Your task to perform on an android device: open wifi settings Image 0: 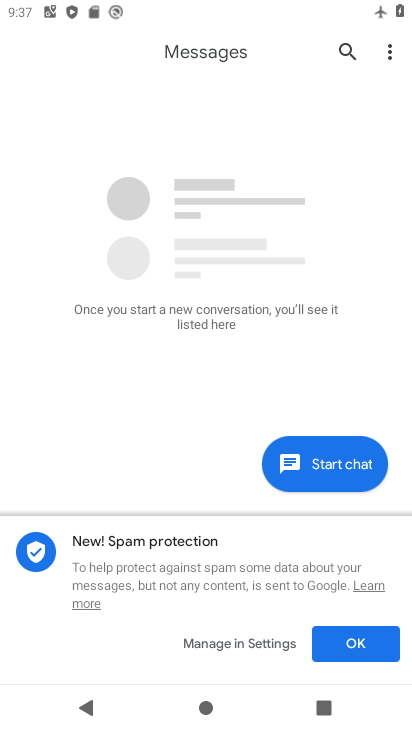
Step 0: press home button
Your task to perform on an android device: open wifi settings Image 1: 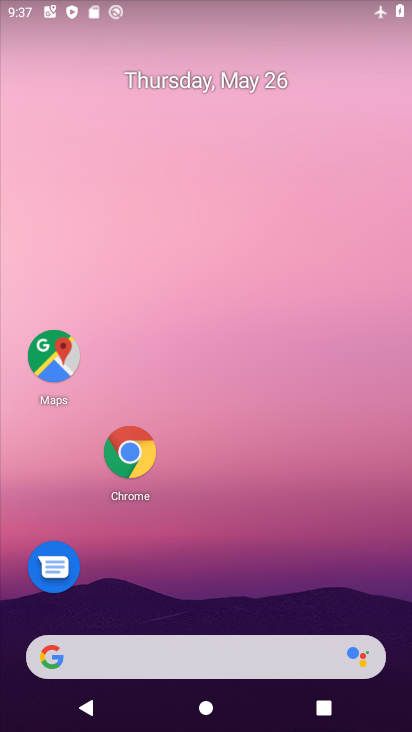
Step 1: drag from (176, 648) to (359, 147)
Your task to perform on an android device: open wifi settings Image 2: 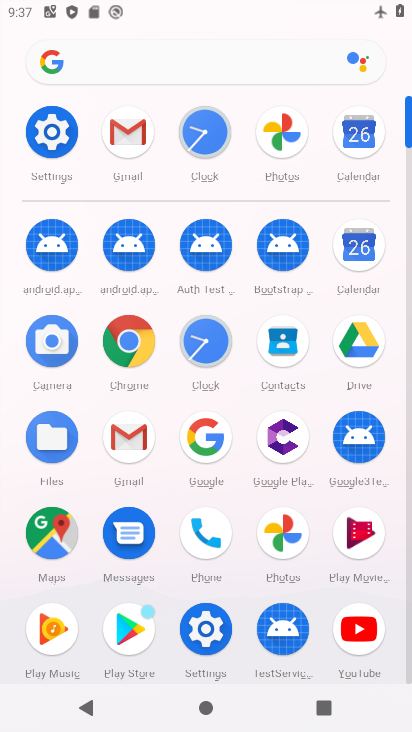
Step 2: click (42, 129)
Your task to perform on an android device: open wifi settings Image 3: 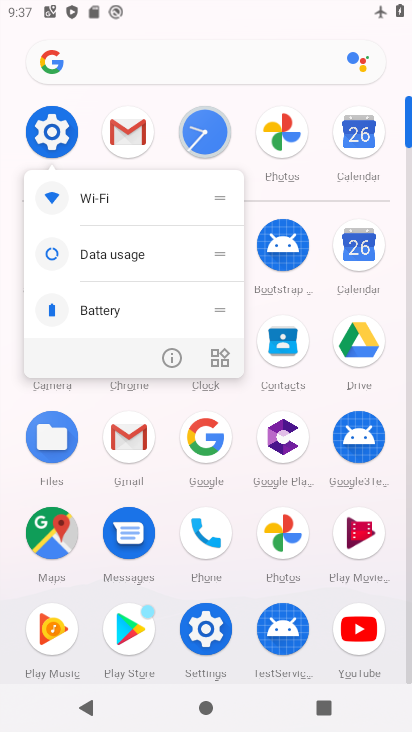
Step 3: click (63, 141)
Your task to perform on an android device: open wifi settings Image 4: 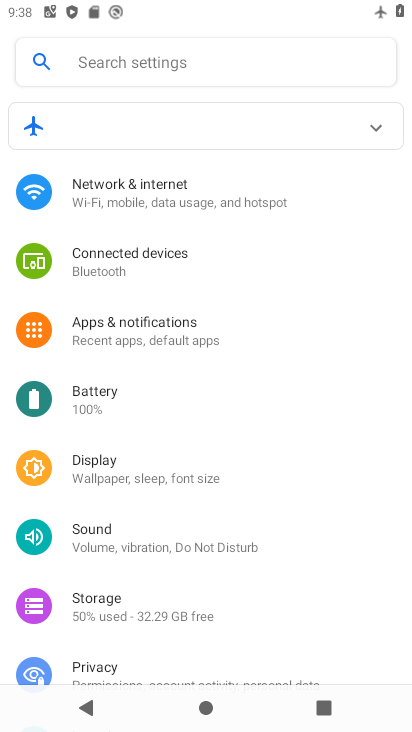
Step 4: click (150, 201)
Your task to perform on an android device: open wifi settings Image 5: 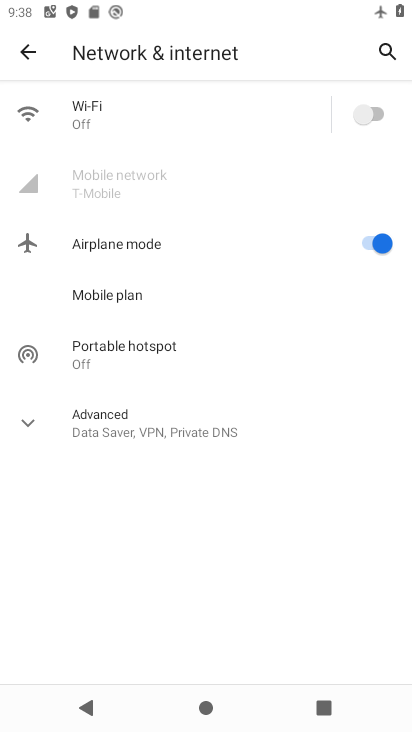
Step 5: click (92, 124)
Your task to perform on an android device: open wifi settings Image 6: 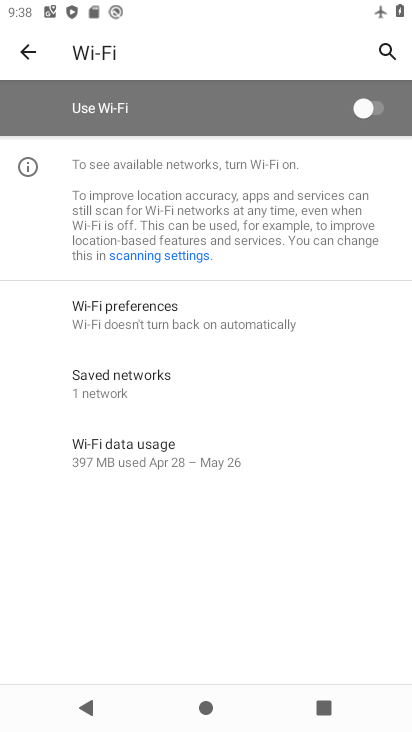
Step 6: task complete